Your task to perform on an android device: Open the stopwatch Image 0: 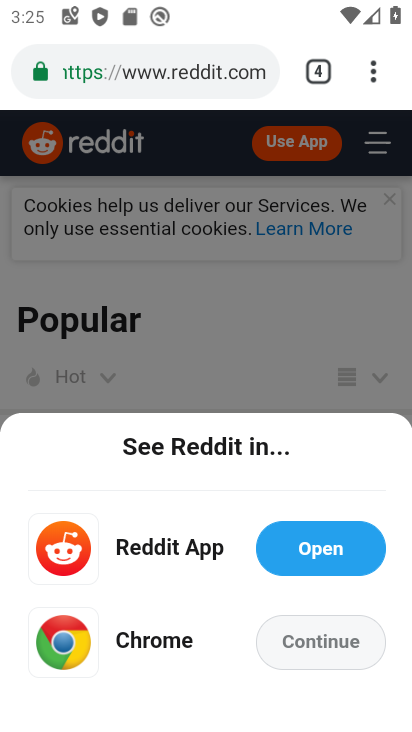
Step 0: press home button
Your task to perform on an android device: Open the stopwatch Image 1: 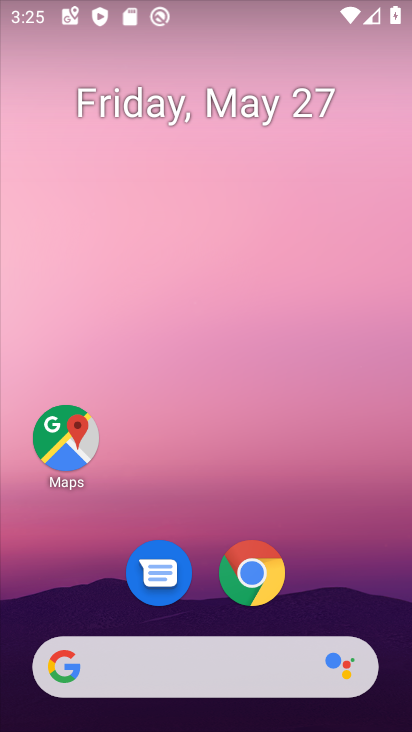
Step 1: drag from (221, 506) to (192, 67)
Your task to perform on an android device: Open the stopwatch Image 2: 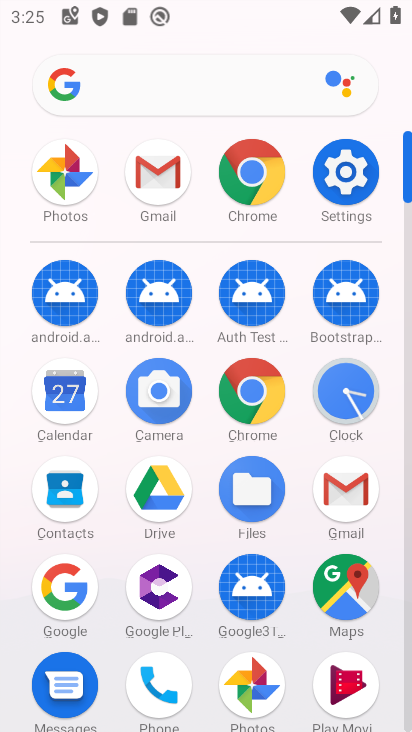
Step 2: click (346, 402)
Your task to perform on an android device: Open the stopwatch Image 3: 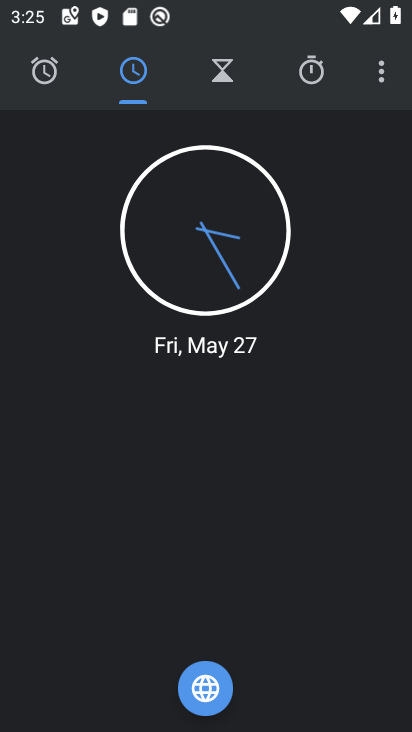
Step 3: click (309, 74)
Your task to perform on an android device: Open the stopwatch Image 4: 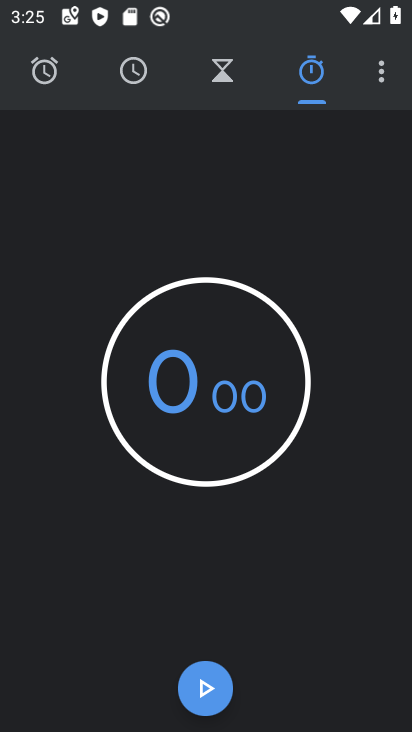
Step 4: task complete